Your task to perform on an android device: search for starred emails in the gmail app Image 0: 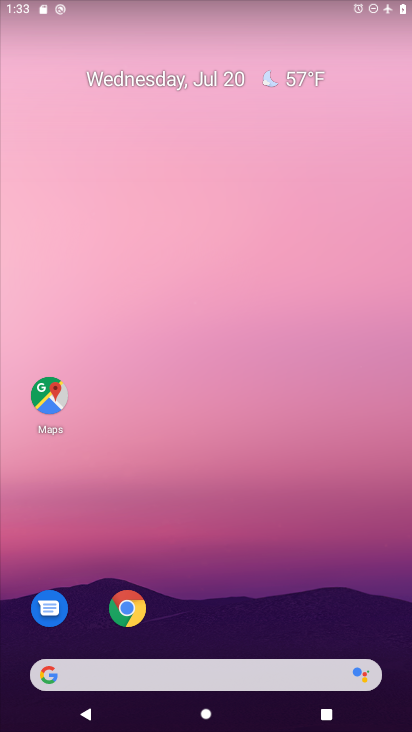
Step 0: drag from (257, 720) to (375, 394)
Your task to perform on an android device: search for starred emails in the gmail app Image 1: 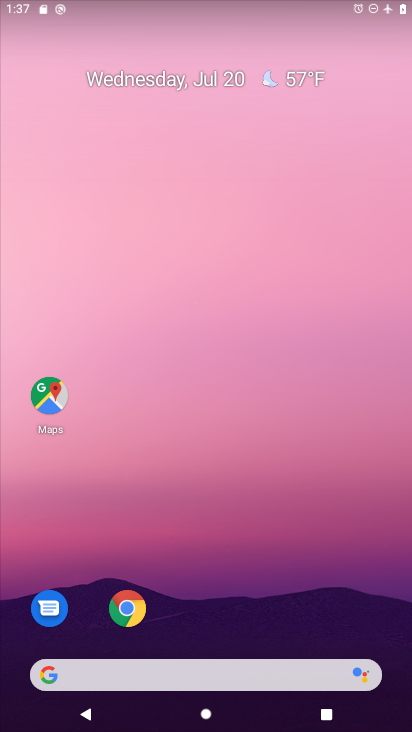
Step 1: drag from (243, 713) to (283, 291)
Your task to perform on an android device: search for starred emails in the gmail app Image 2: 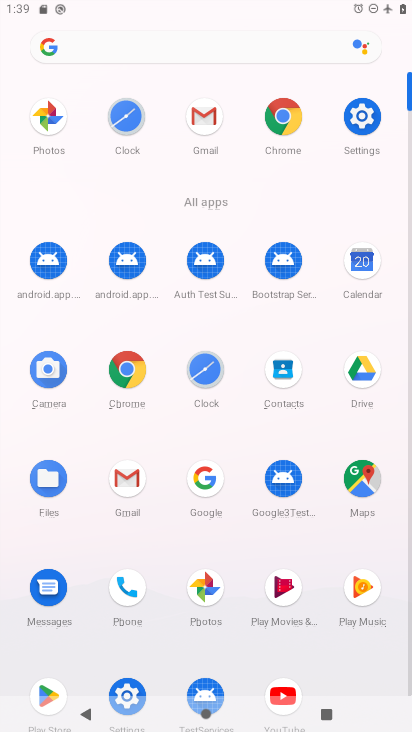
Step 2: click (378, 485)
Your task to perform on an android device: search for starred emails in the gmail app Image 3: 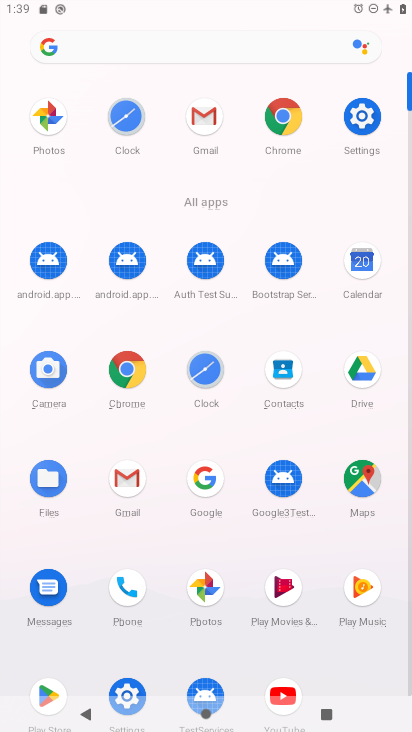
Step 3: click (378, 485)
Your task to perform on an android device: search for starred emails in the gmail app Image 4: 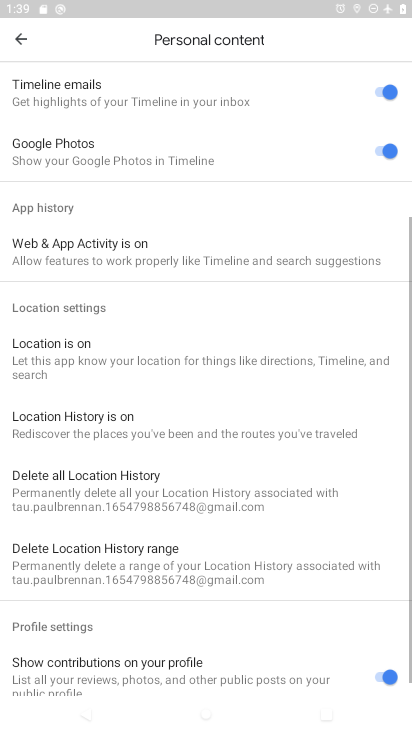
Step 4: click (21, 35)
Your task to perform on an android device: search for starred emails in the gmail app Image 5: 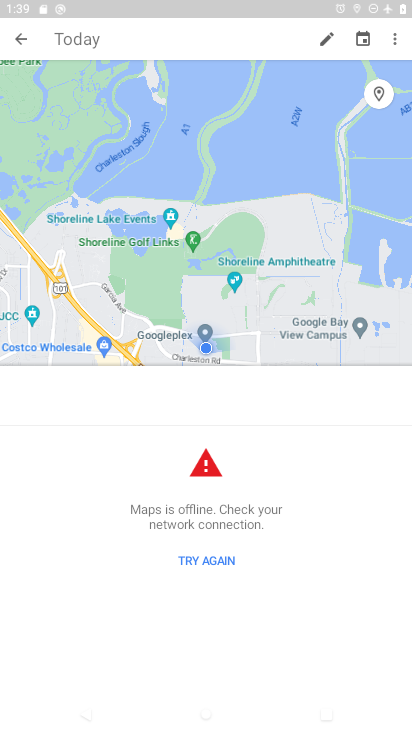
Step 5: click (15, 42)
Your task to perform on an android device: search for starred emails in the gmail app Image 6: 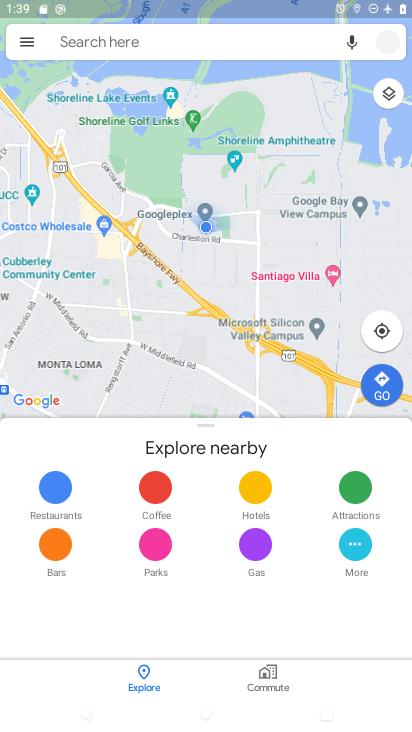
Step 6: click (26, 43)
Your task to perform on an android device: search for starred emails in the gmail app Image 7: 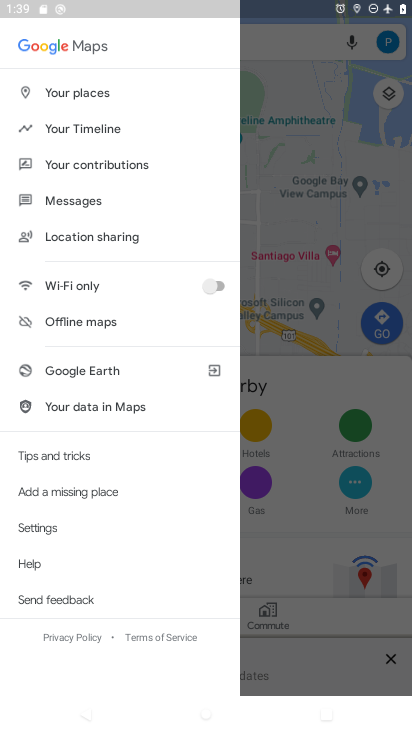
Step 7: press home button
Your task to perform on an android device: search for starred emails in the gmail app Image 8: 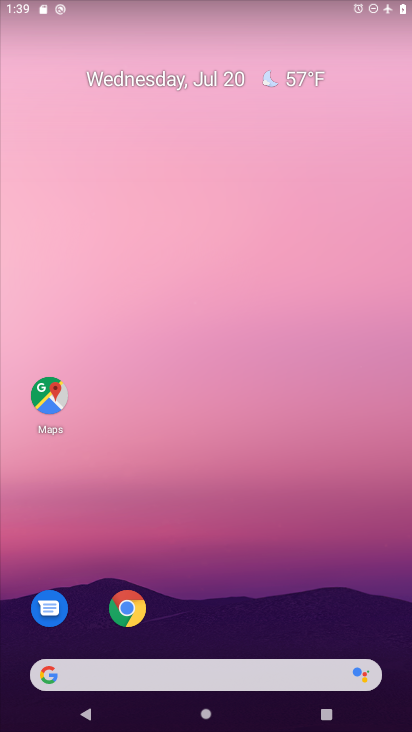
Step 8: drag from (158, 642) to (206, 336)
Your task to perform on an android device: search for starred emails in the gmail app Image 9: 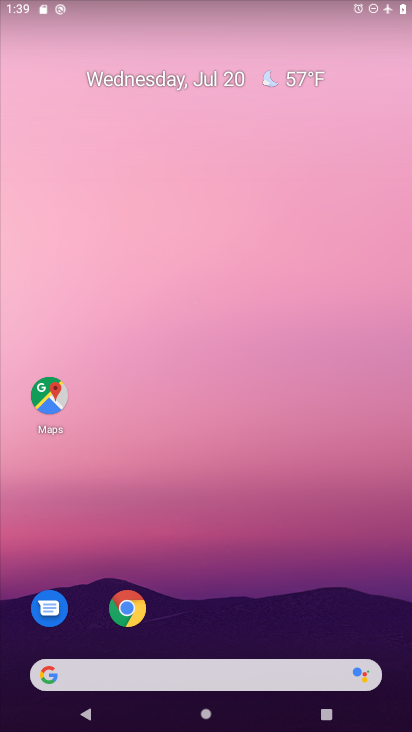
Step 9: drag from (258, 699) to (248, 67)
Your task to perform on an android device: search for starred emails in the gmail app Image 10: 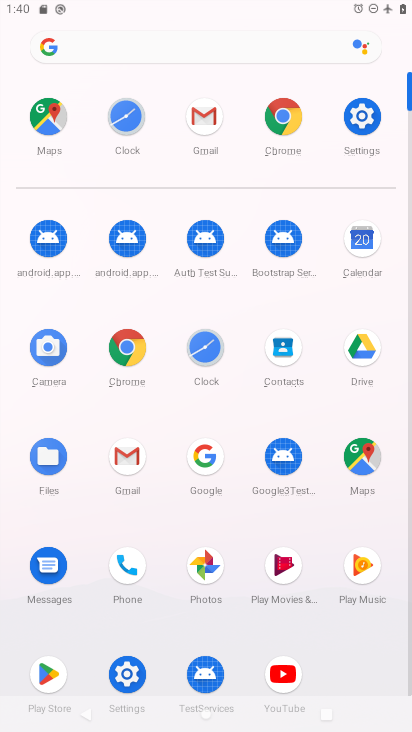
Step 10: click (206, 115)
Your task to perform on an android device: search for starred emails in the gmail app Image 11: 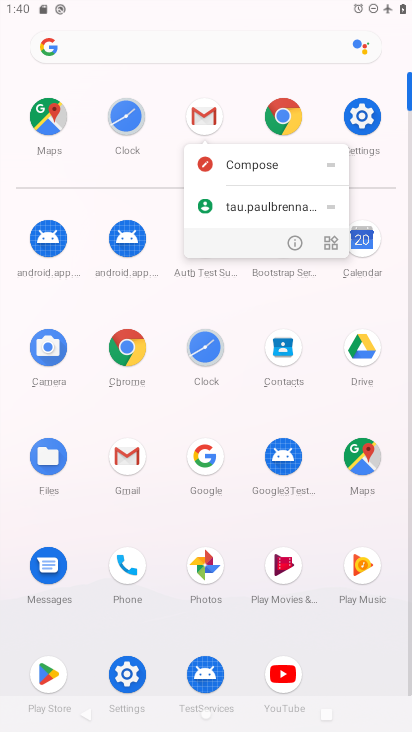
Step 11: click (206, 115)
Your task to perform on an android device: search for starred emails in the gmail app Image 12: 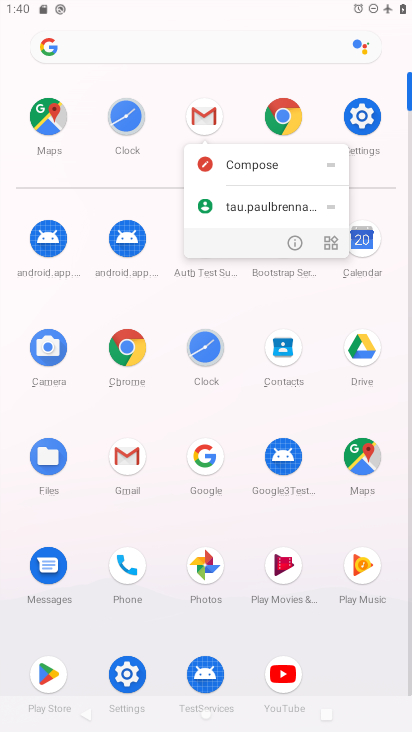
Step 12: click (206, 115)
Your task to perform on an android device: search for starred emails in the gmail app Image 13: 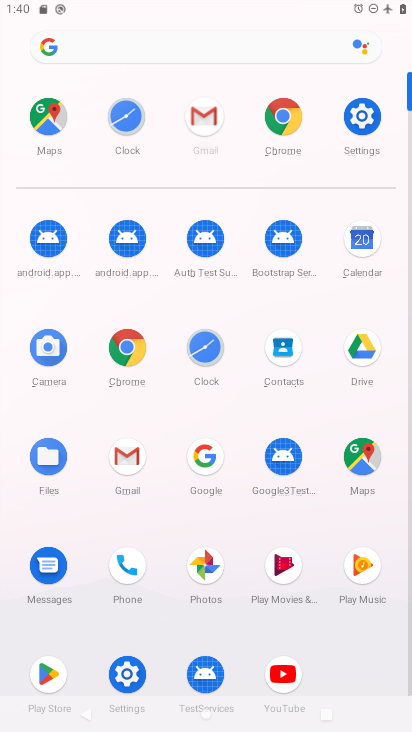
Step 13: click (206, 115)
Your task to perform on an android device: search for starred emails in the gmail app Image 14: 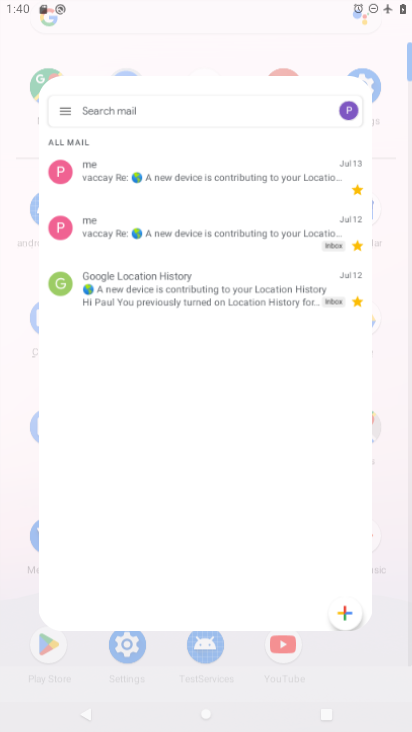
Step 14: click (206, 115)
Your task to perform on an android device: search for starred emails in the gmail app Image 15: 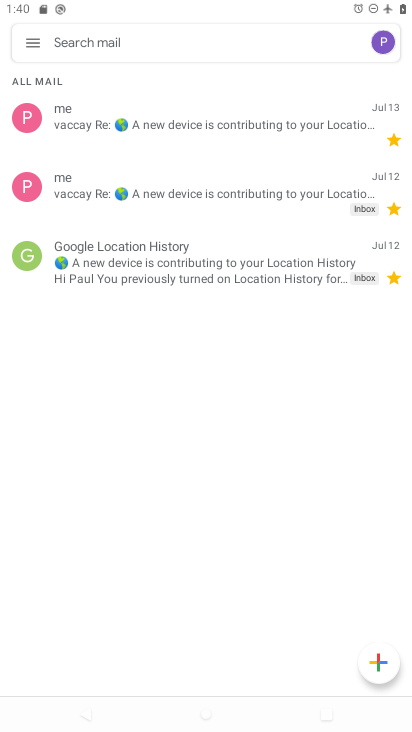
Step 15: click (31, 37)
Your task to perform on an android device: search for starred emails in the gmail app Image 16: 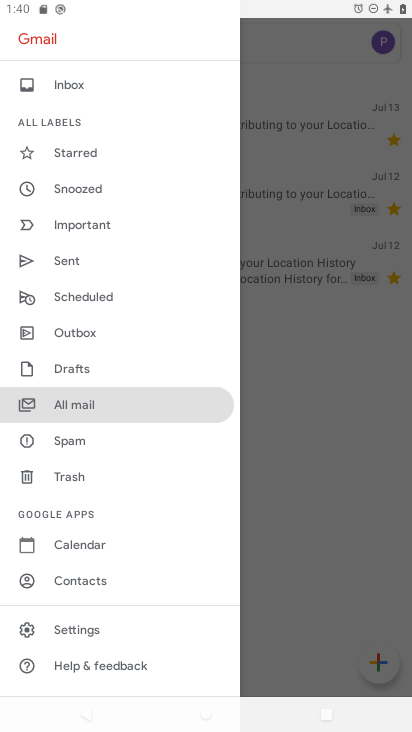
Step 16: click (74, 158)
Your task to perform on an android device: search for starred emails in the gmail app Image 17: 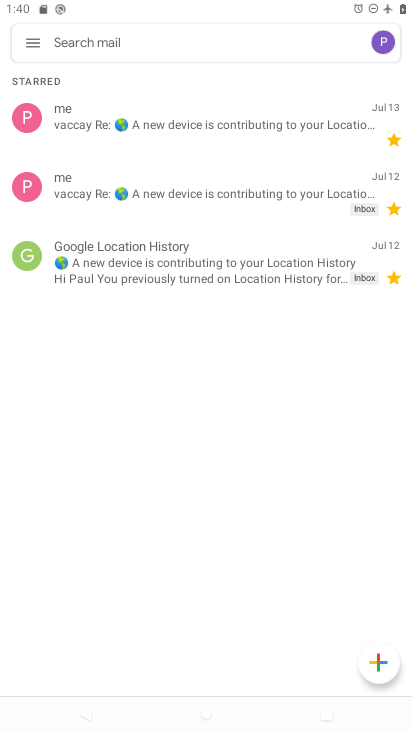
Step 17: task complete